Your task to perform on an android device: change the clock style Image 0: 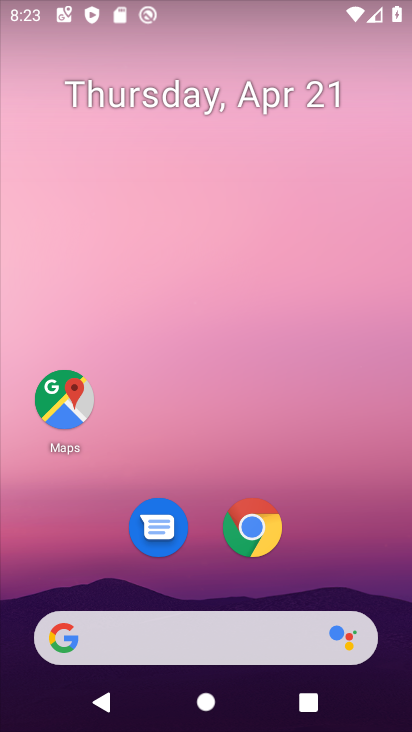
Step 0: drag from (313, 476) to (321, 33)
Your task to perform on an android device: change the clock style Image 1: 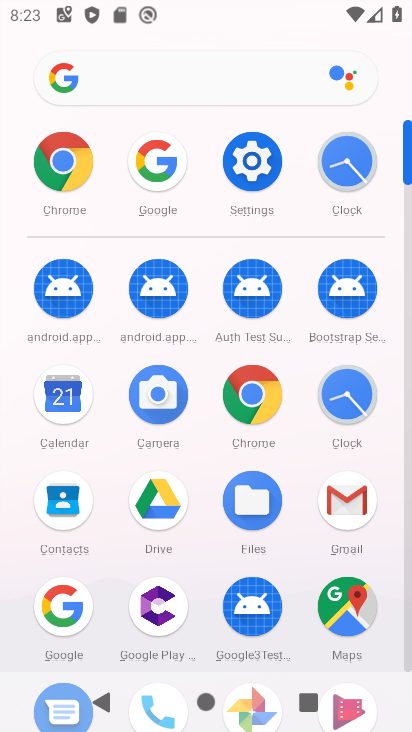
Step 1: click (330, 177)
Your task to perform on an android device: change the clock style Image 2: 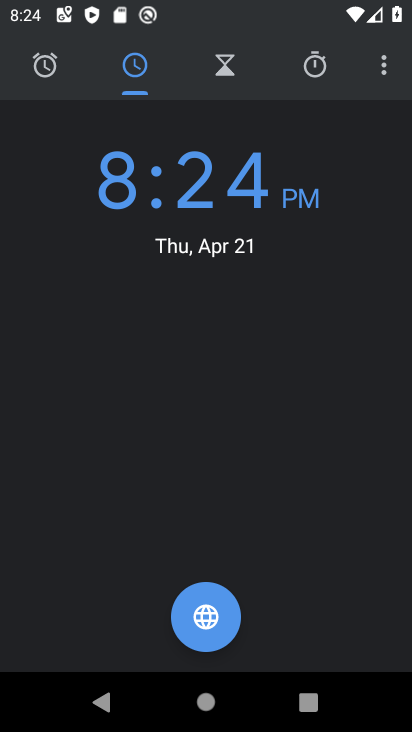
Step 2: click (378, 82)
Your task to perform on an android device: change the clock style Image 3: 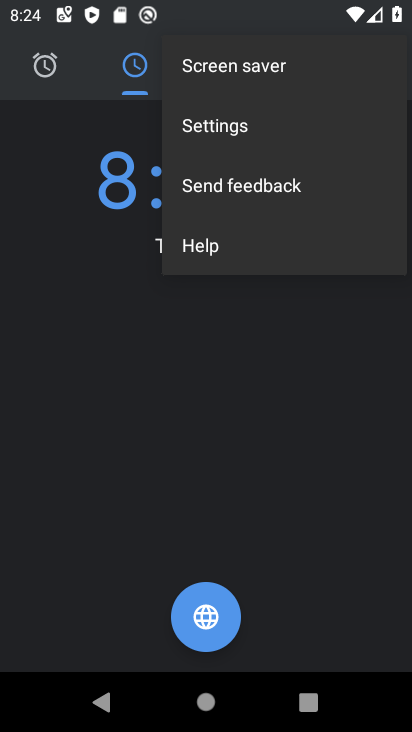
Step 3: click (260, 128)
Your task to perform on an android device: change the clock style Image 4: 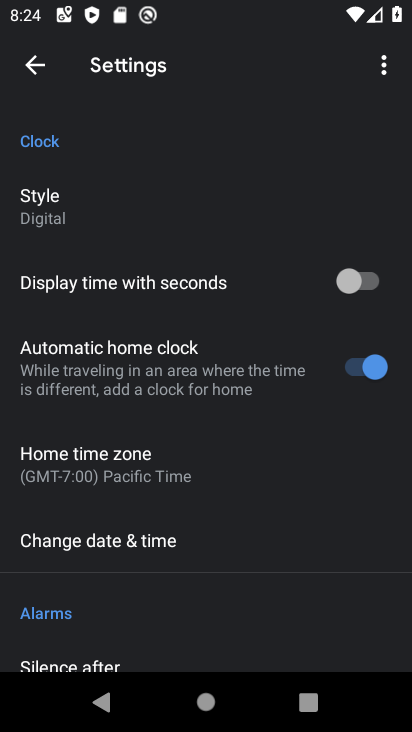
Step 4: drag from (203, 536) to (192, 228)
Your task to perform on an android device: change the clock style Image 5: 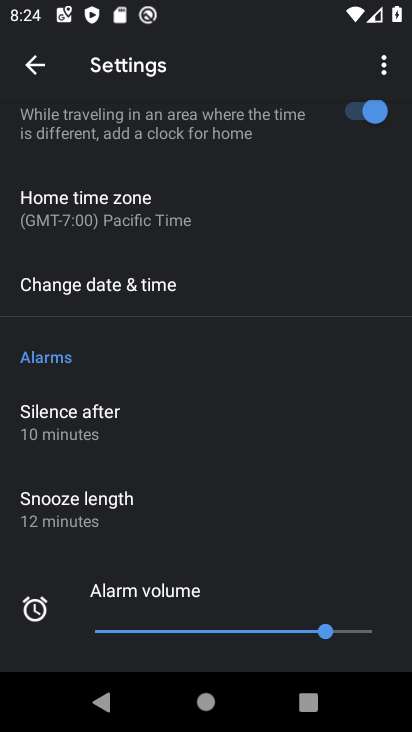
Step 5: drag from (199, 252) to (219, 623)
Your task to perform on an android device: change the clock style Image 6: 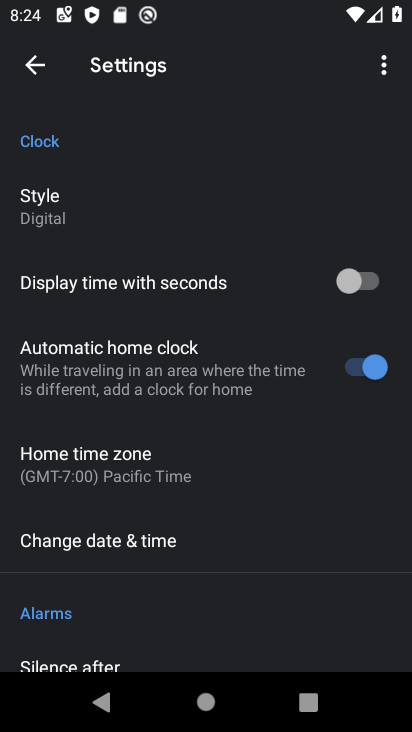
Step 6: click (175, 205)
Your task to perform on an android device: change the clock style Image 7: 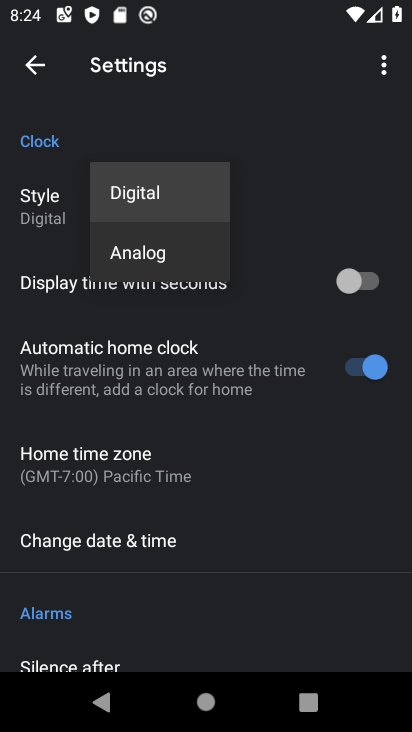
Step 7: click (158, 246)
Your task to perform on an android device: change the clock style Image 8: 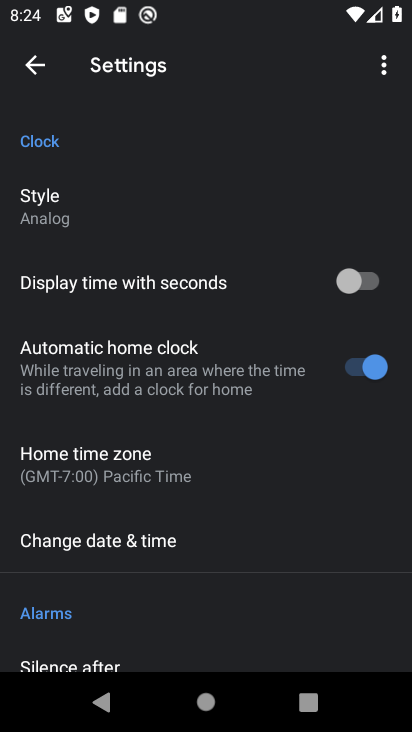
Step 8: task complete